Your task to perform on an android device: turn off data saver in the chrome app Image 0: 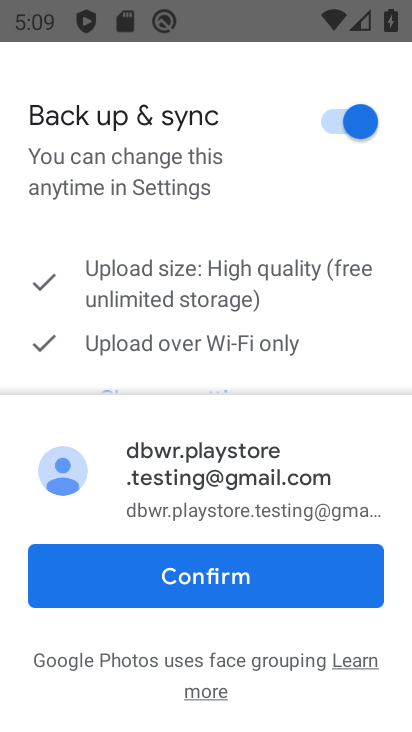
Step 0: press home button
Your task to perform on an android device: turn off data saver in the chrome app Image 1: 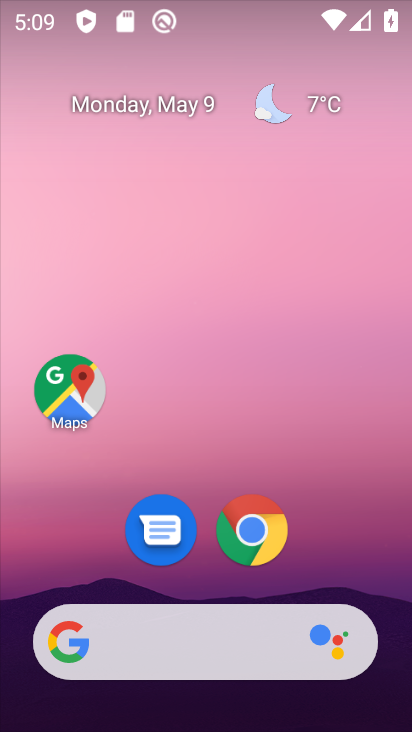
Step 1: click (238, 521)
Your task to perform on an android device: turn off data saver in the chrome app Image 2: 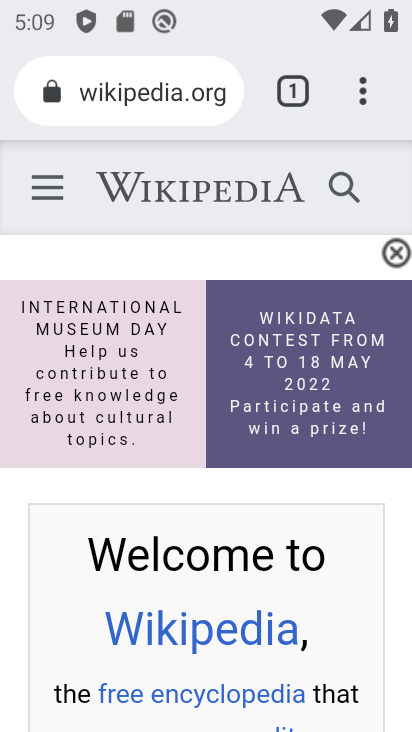
Step 2: click (376, 99)
Your task to perform on an android device: turn off data saver in the chrome app Image 3: 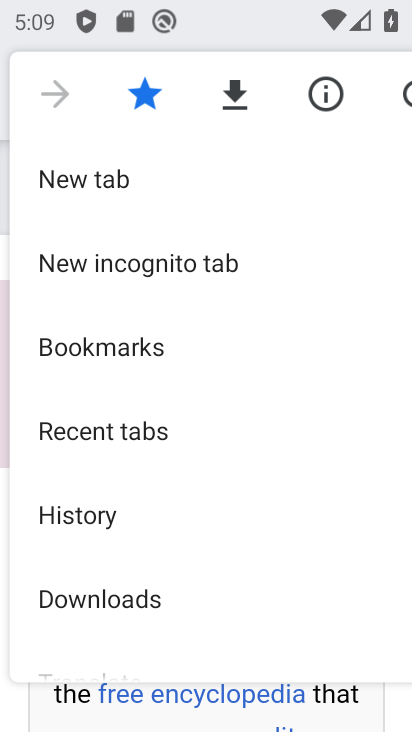
Step 3: drag from (235, 626) to (235, 165)
Your task to perform on an android device: turn off data saver in the chrome app Image 4: 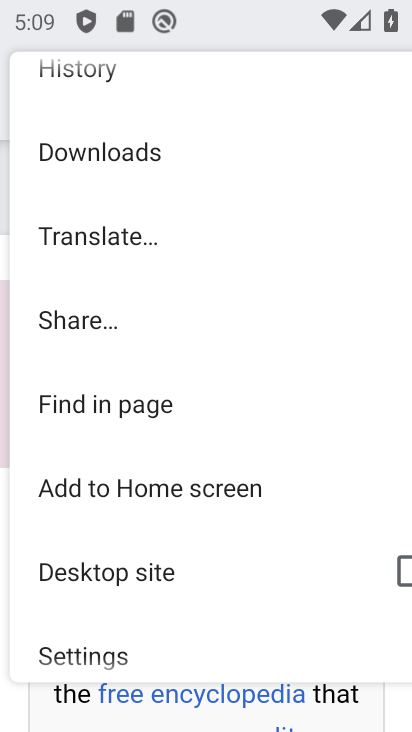
Step 4: click (159, 654)
Your task to perform on an android device: turn off data saver in the chrome app Image 5: 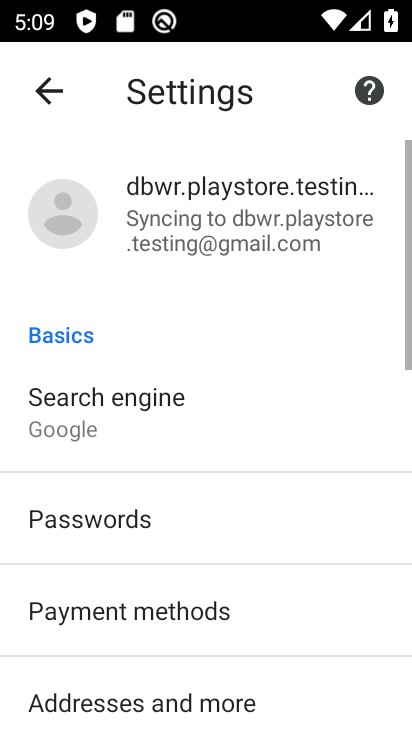
Step 5: drag from (167, 593) to (222, 108)
Your task to perform on an android device: turn off data saver in the chrome app Image 6: 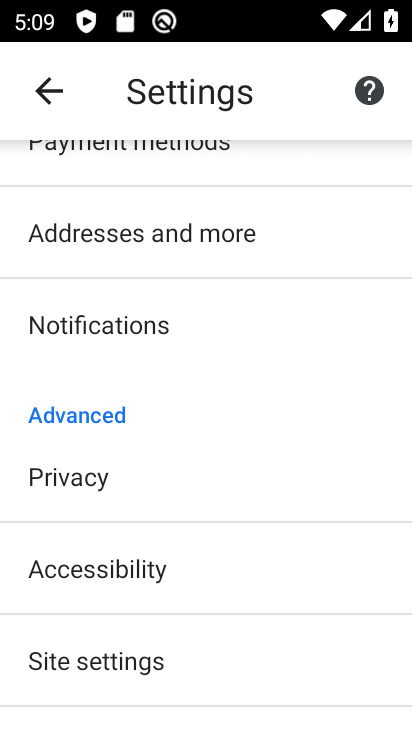
Step 6: drag from (197, 587) to (218, 288)
Your task to perform on an android device: turn off data saver in the chrome app Image 7: 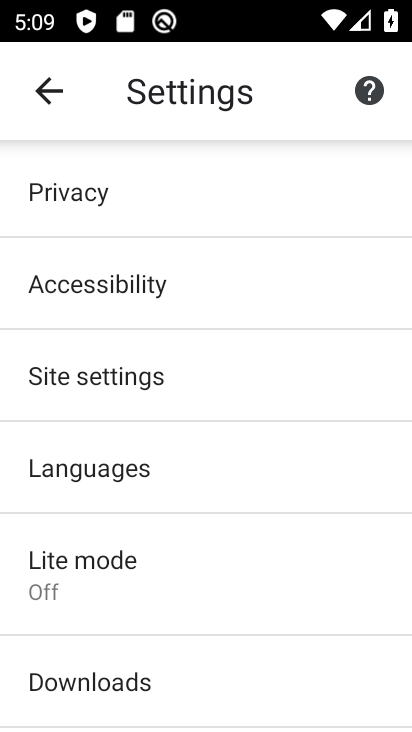
Step 7: click (147, 588)
Your task to perform on an android device: turn off data saver in the chrome app Image 8: 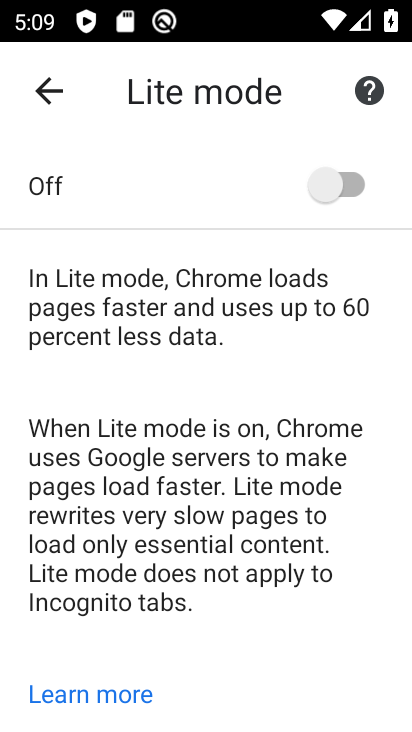
Step 8: task complete